Your task to perform on an android device: Go to Maps Image 0: 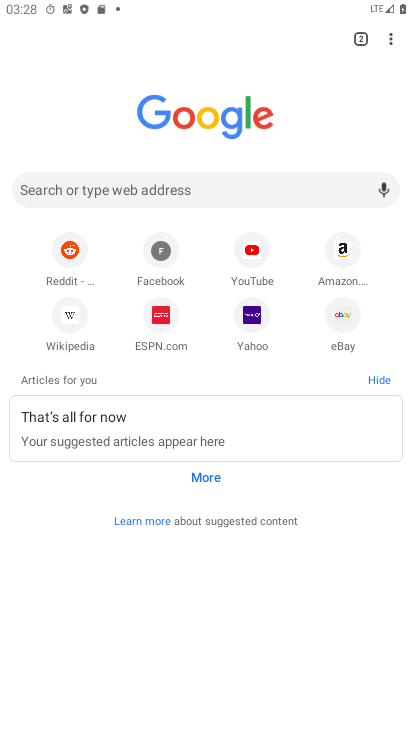
Step 0: drag from (26, 714) to (161, 342)
Your task to perform on an android device: Go to Maps Image 1: 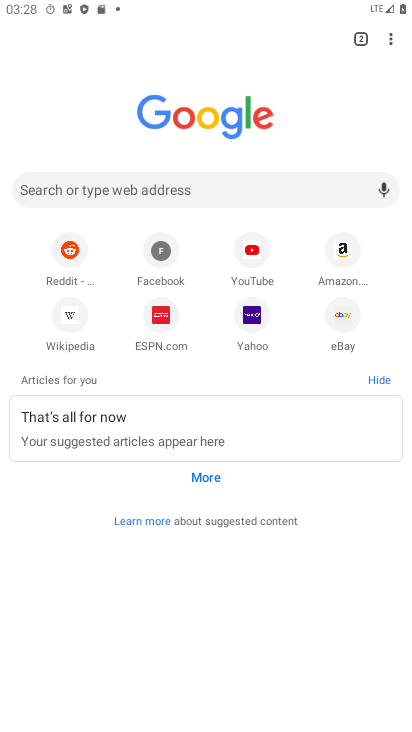
Step 1: press home button
Your task to perform on an android device: Go to Maps Image 2: 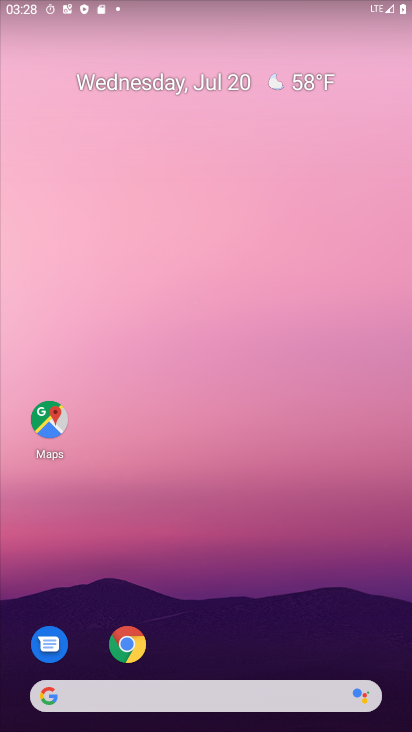
Step 2: click (48, 421)
Your task to perform on an android device: Go to Maps Image 3: 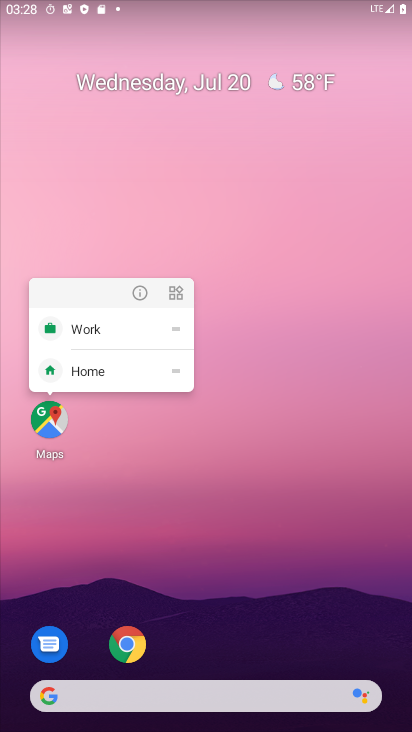
Step 3: click (47, 422)
Your task to perform on an android device: Go to Maps Image 4: 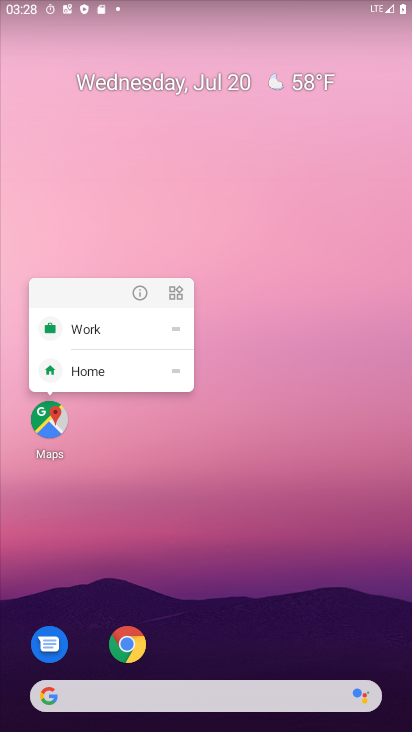
Step 4: click (54, 420)
Your task to perform on an android device: Go to Maps Image 5: 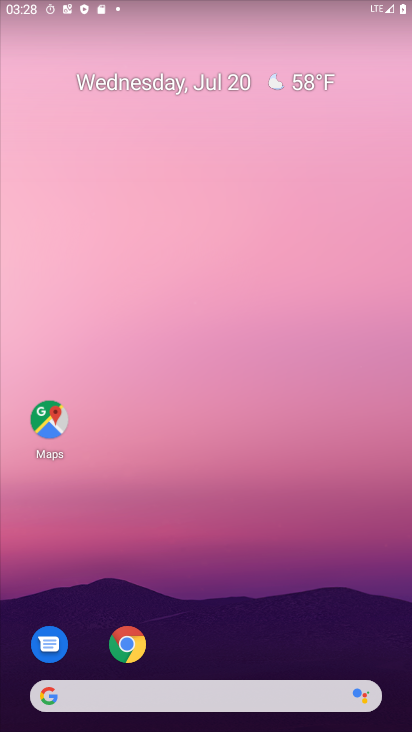
Step 5: click (54, 420)
Your task to perform on an android device: Go to Maps Image 6: 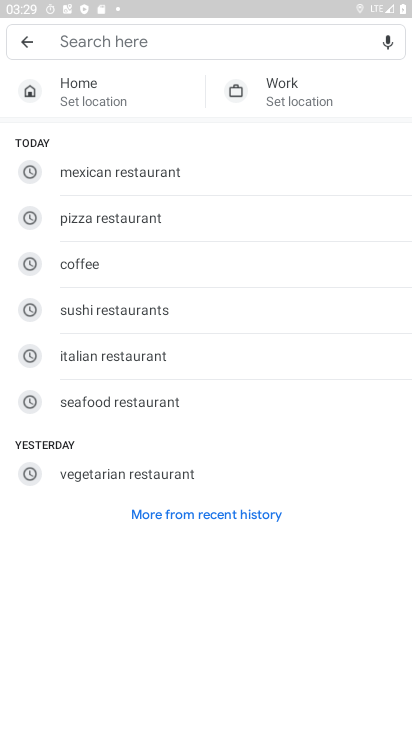
Step 6: click (32, 45)
Your task to perform on an android device: Go to Maps Image 7: 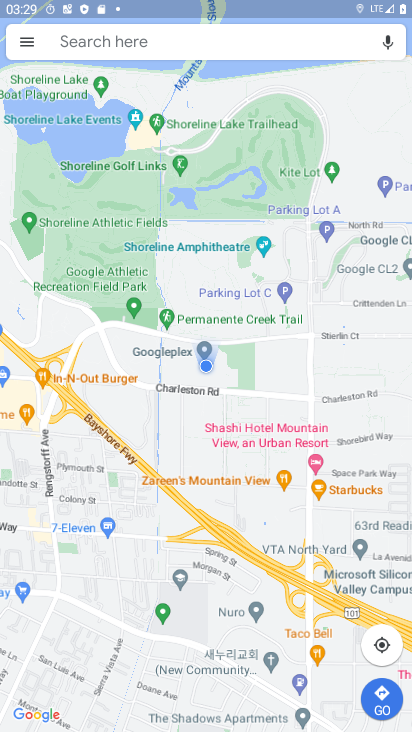
Step 7: task complete